Your task to perform on an android device: Open Android settings Image 0: 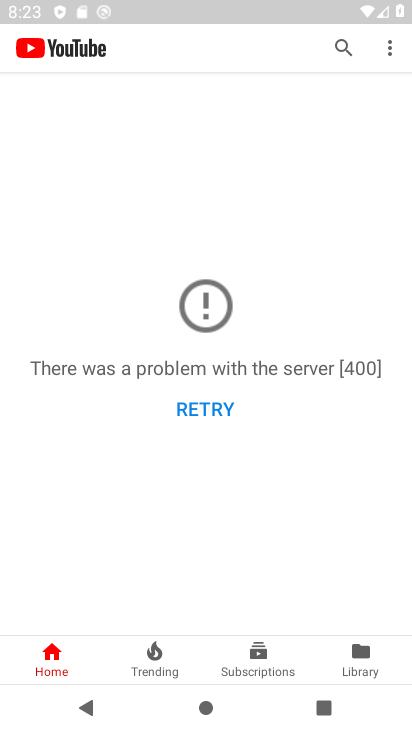
Step 0: press back button
Your task to perform on an android device: Open Android settings Image 1: 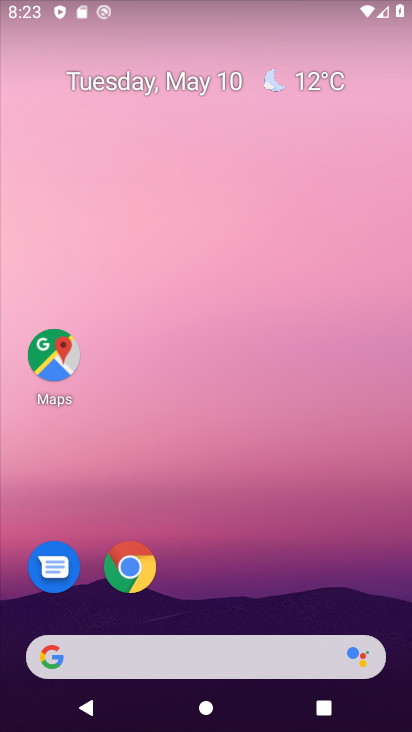
Step 1: drag from (217, 644) to (220, 249)
Your task to perform on an android device: Open Android settings Image 2: 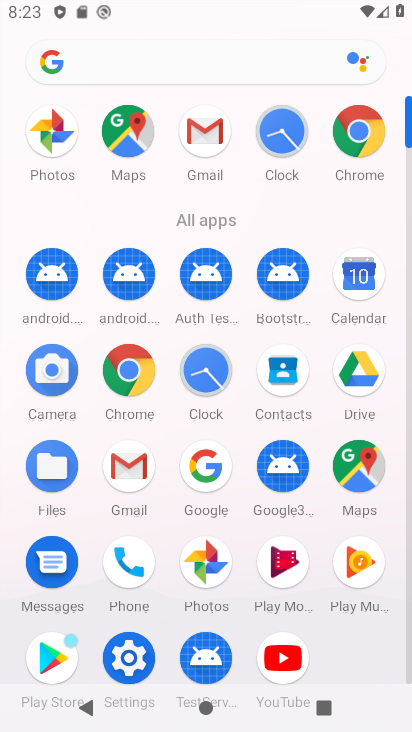
Step 2: click (114, 644)
Your task to perform on an android device: Open Android settings Image 3: 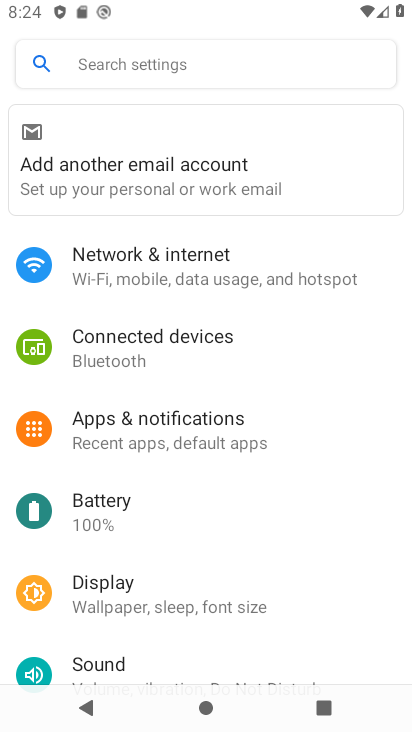
Step 3: task complete